Your task to perform on an android device: Go to location settings Image 0: 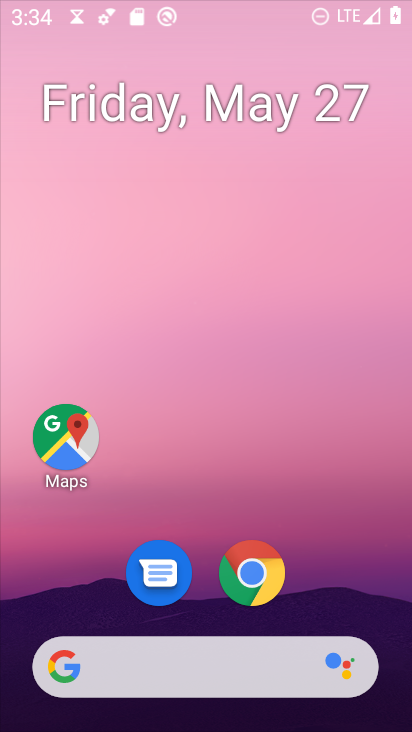
Step 0: drag from (311, 597) to (354, 52)
Your task to perform on an android device: Go to location settings Image 1: 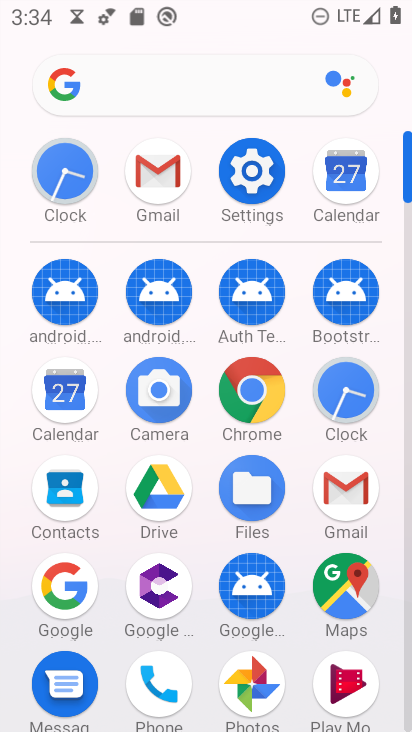
Step 1: click (243, 164)
Your task to perform on an android device: Go to location settings Image 2: 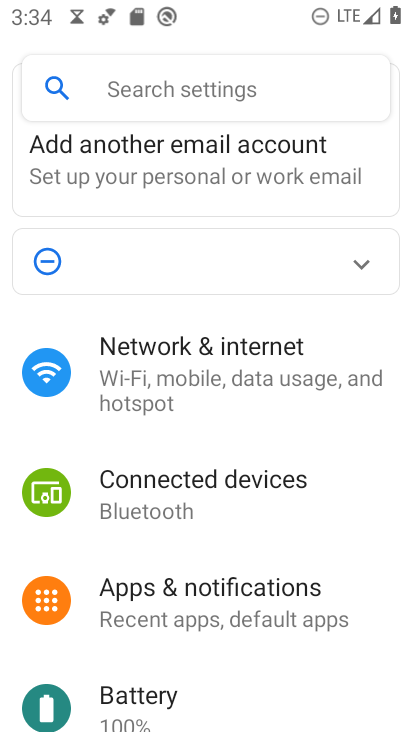
Step 2: drag from (228, 666) to (247, 128)
Your task to perform on an android device: Go to location settings Image 3: 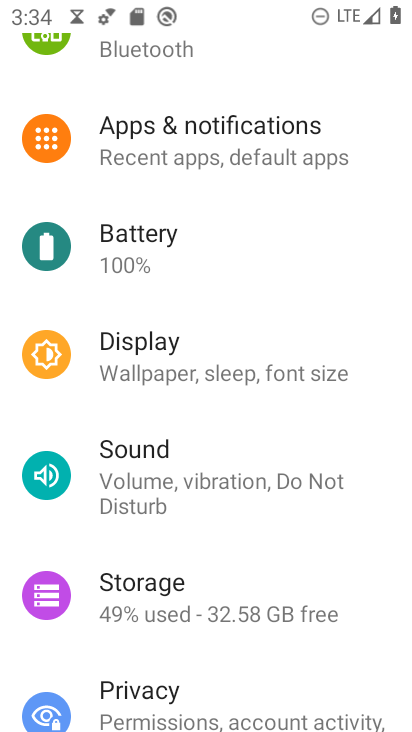
Step 3: drag from (186, 625) to (257, 294)
Your task to perform on an android device: Go to location settings Image 4: 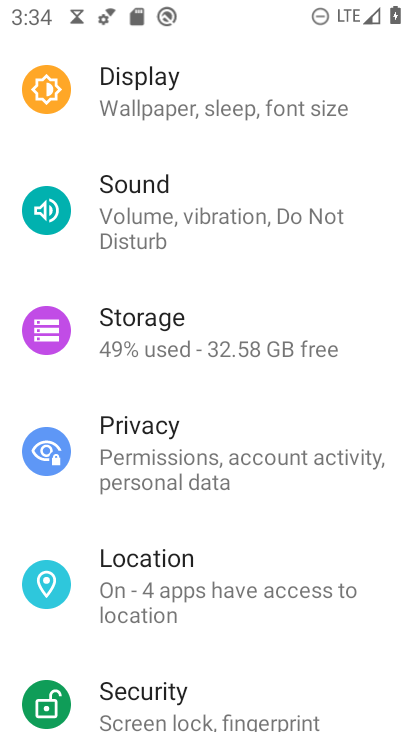
Step 4: click (153, 592)
Your task to perform on an android device: Go to location settings Image 5: 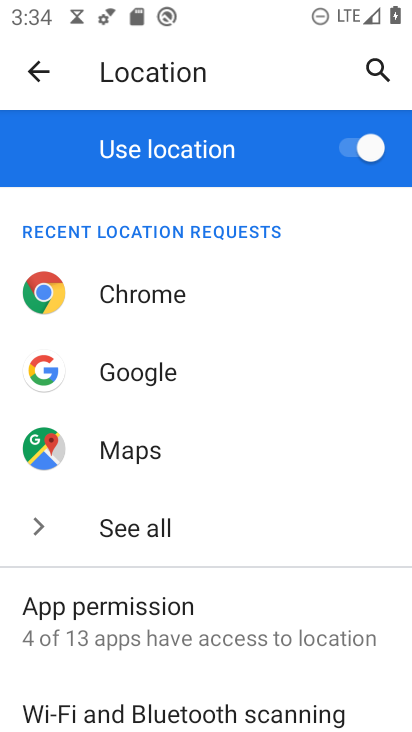
Step 5: task complete